Your task to perform on an android device: Open location settings Image 0: 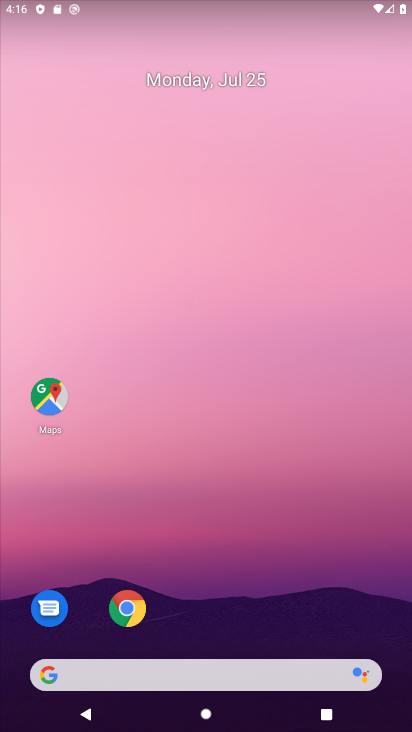
Step 0: drag from (224, 601) to (261, 214)
Your task to perform on an android device: Open location settings Image 1: 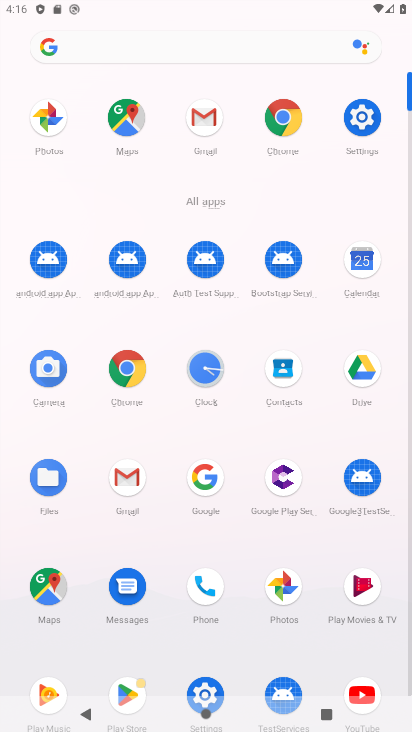
Step 1: click (203, 682)
Your task to perform on an android device: Open location settings Image 2: 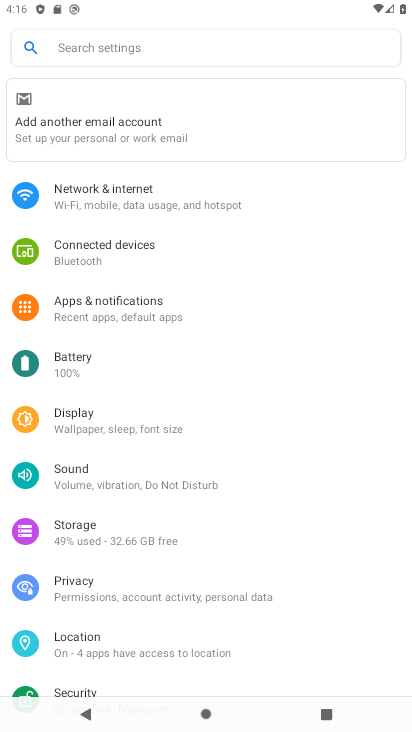
Step 2: click (101, 650)
Your task to perform on an android device: Open location settings Image 3: 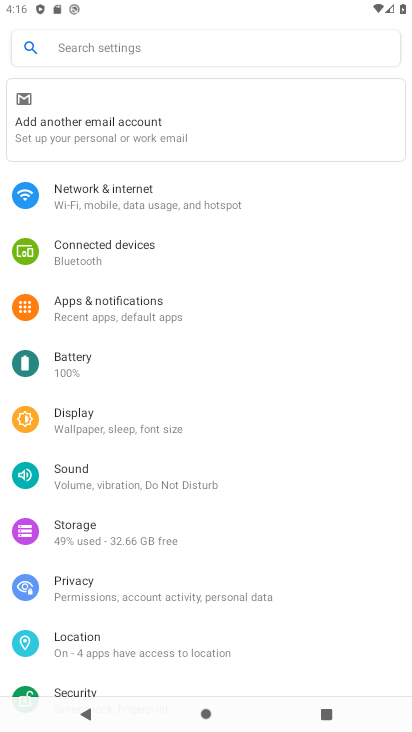
Step 3: click (86, 637)
Your task to perform on an android device: Open location settings Image 4: 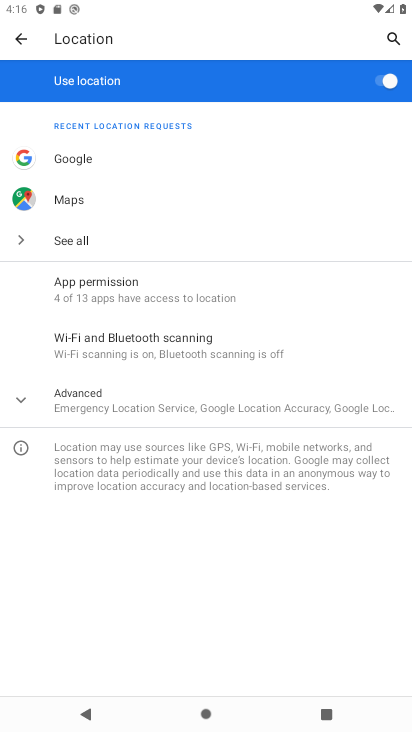
Step 4: task complete